Your task to perform on an android device: Search for vegetarian restaurants on Maps Image 0: 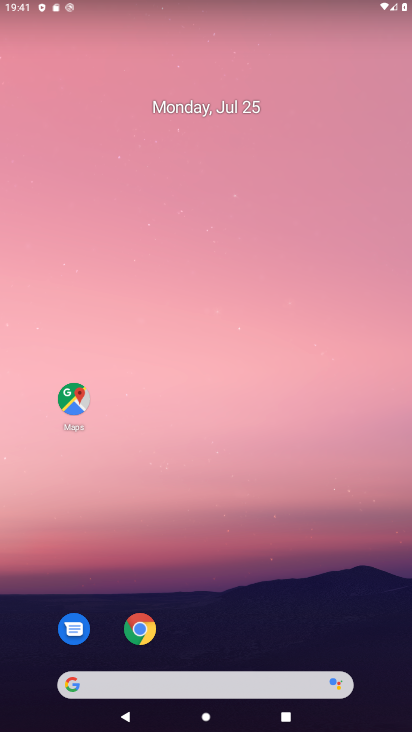
Step 0: click (88, 382)
Your task to perform on an android device: Search for vegetarian restaurants on Maps Image 1: 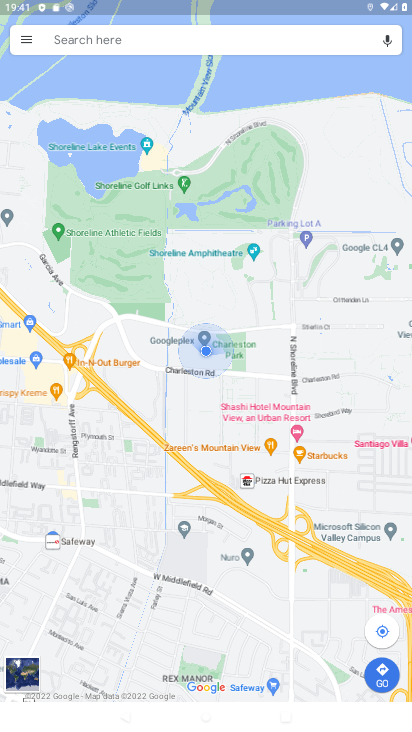
Step 1: click (74, 40)
Your task to perform on an android device: Search for vegetarian restaurants on Maps Image 2: 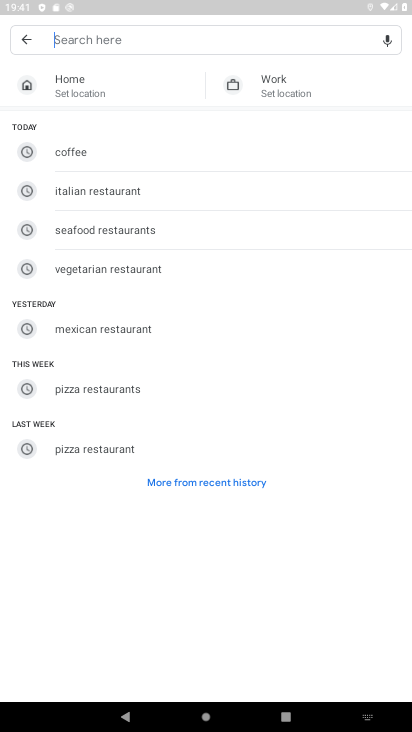
Step 2: click (85, 273)
Your task to perform on an android device: Search for vegetarian restaurants on Maps Image 3: 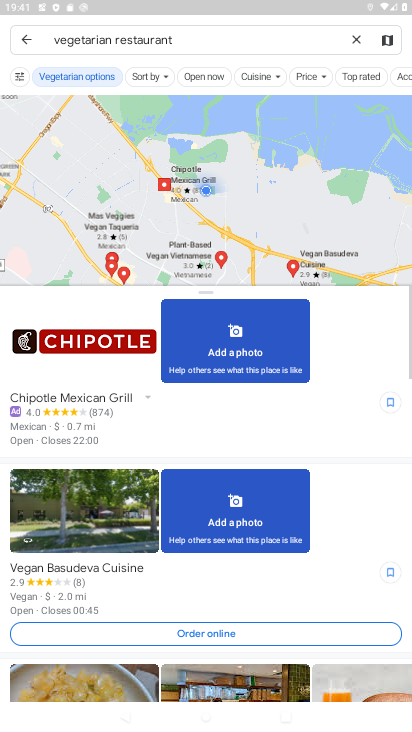
Step 3: task complete